Your task to perform on an android device: turn on bluetooth scan Image 0: 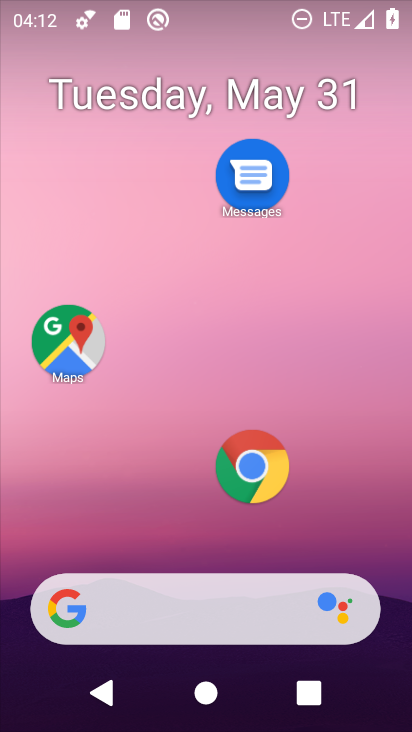
Step 0: drag from (122, 518) to (205, 21)
Your task to perform on an android device: turn on bluetooth scan Image 1: 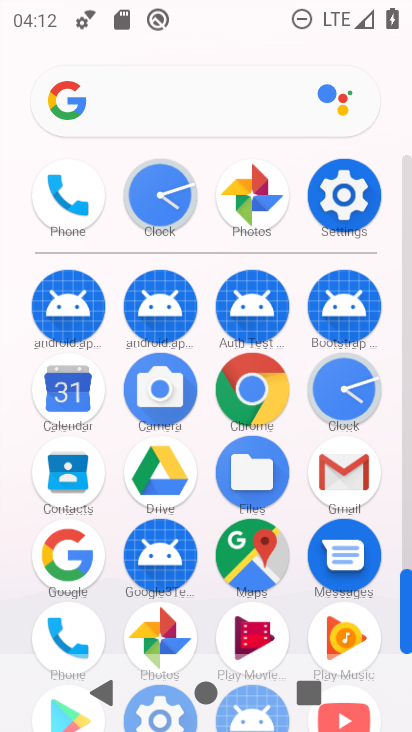
Step 1: click (328, 190)
Your task to perform on an android device: turn on bluetooth scan Image 2: 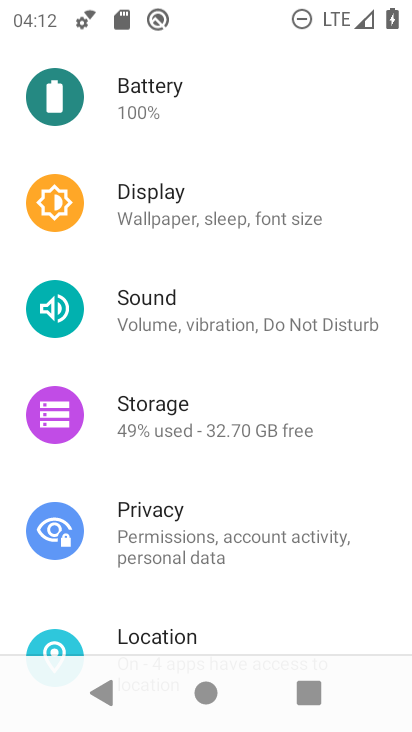
Step 2: drag from (245, 187) to (175, 642)
Your task to perform on an android device: turn on bluetooth scan Image 3: 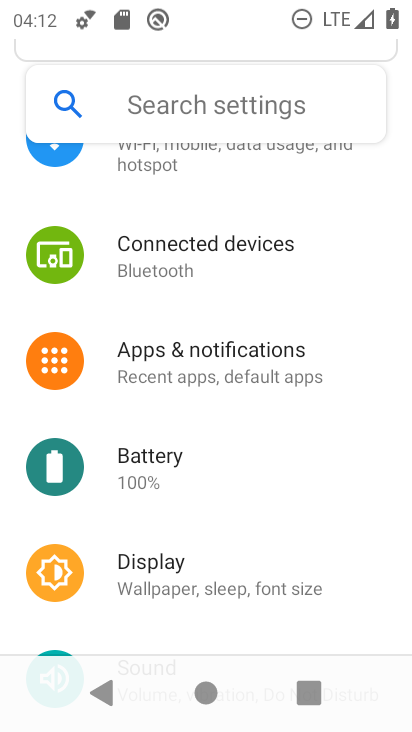
Step 3: click (166, 246)
Your task to perform on an android device: turn on bluetooth scan Image 4: 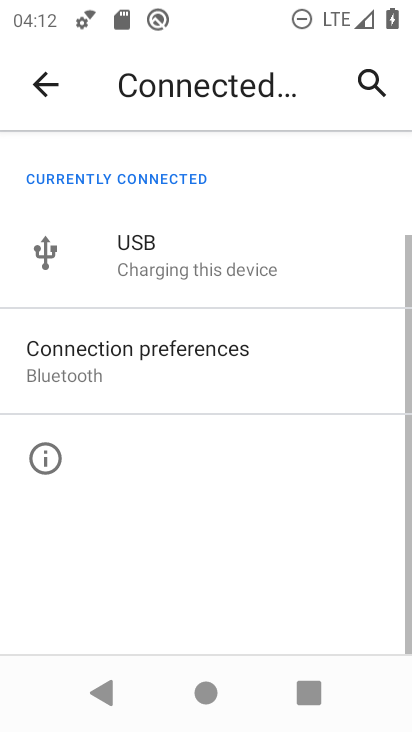
Step 4: click (105, 372)
Your task to perform on an android device: turn on bluetooth scan Image 5: 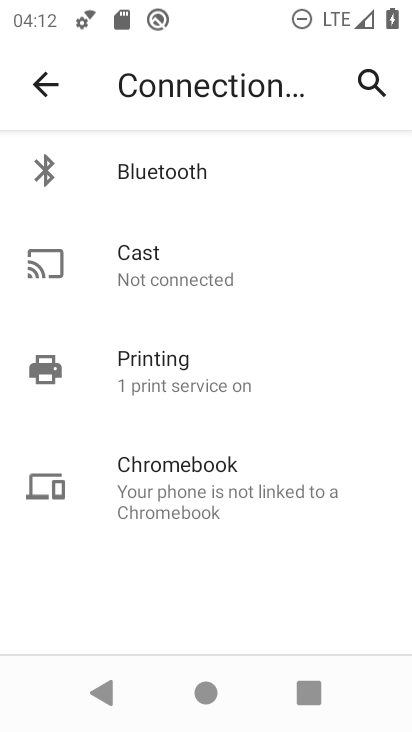
Step 5: click (181, 164)
Your task to perform on an android device: turn on bluetooth scan Image 6: 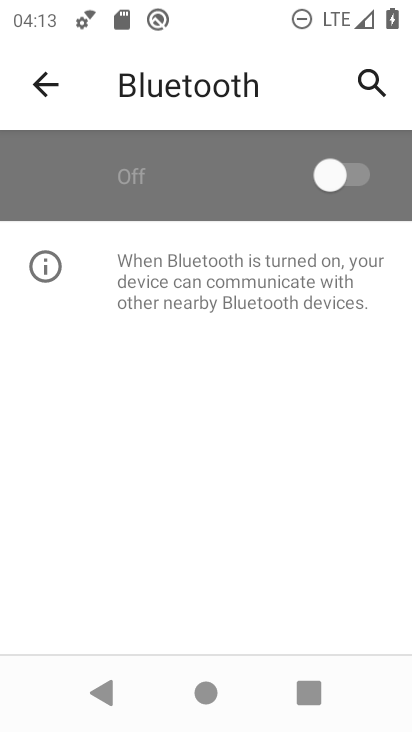
Step 6: click (357, 172)
Your task to perform on an android device: turn on bluetooth scan Image 7: 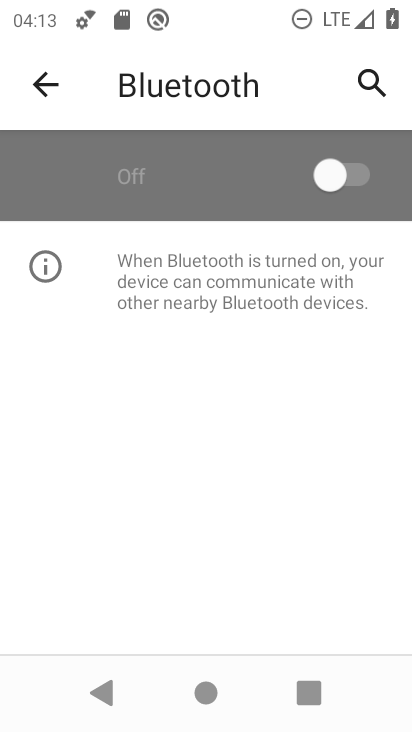
Step 7: task complete